Your task to perform on an android device: Search for sushi restaurants on Maps Image 0: 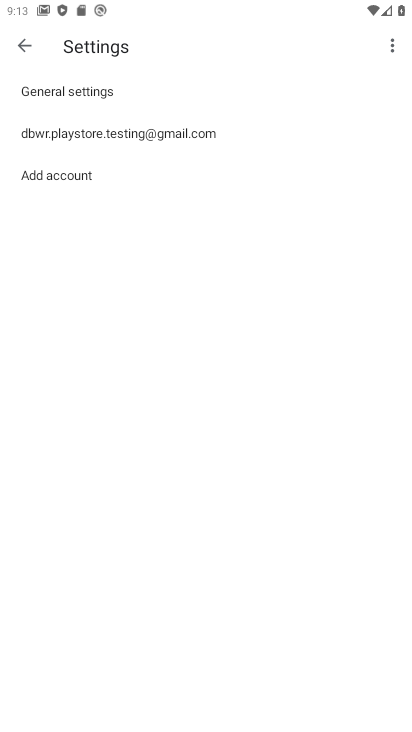
Step 0: press home button
Your task to perform on an android device: Search for sushi restaurants on Maps Image 1: 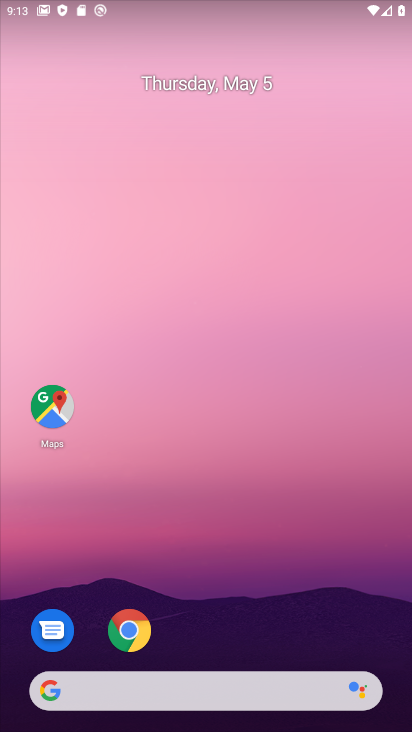
Step 1: click (48, 407)
Your task to perform on an android device: Search for sushi restaurants on Maps Image 2: 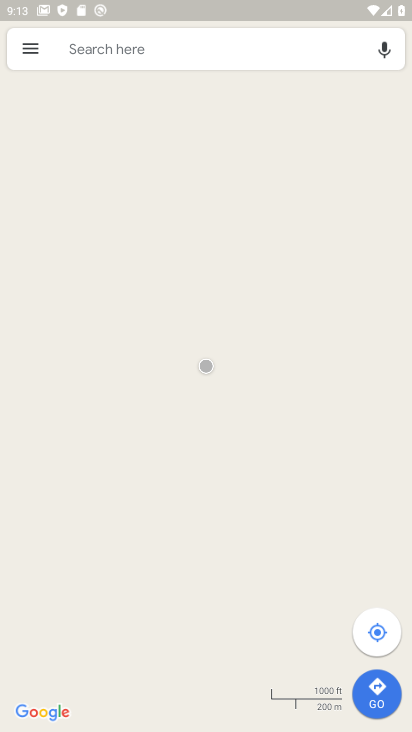
Step 2: click (170, 54)
Your task to perform on an android device: Search for sushi restaurants on Maps Image 3: 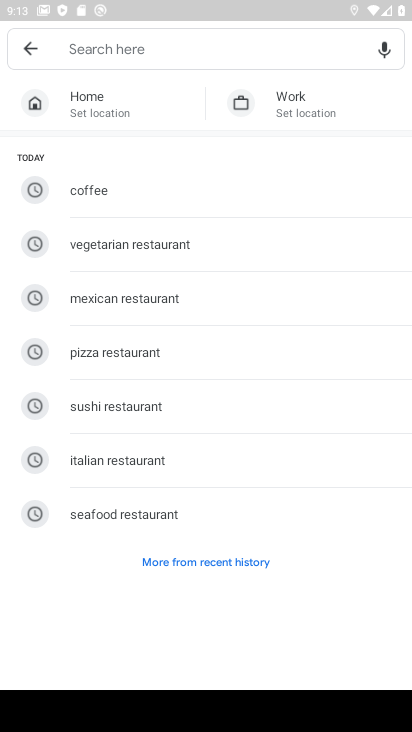
Step 3: type "sushi restaurants"
Your task to perform on an android device: Search for sushi restaurants on Maps Image 4: 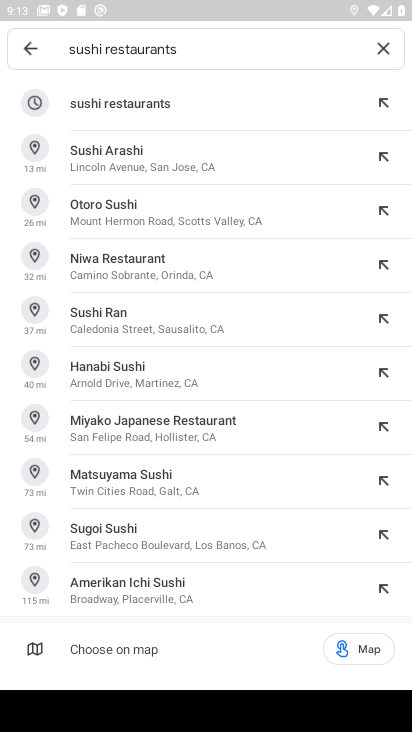
Step 4: click (120, 109)
Your task to perform on an android device: Search for sushi restaurants on Maps Image 5: 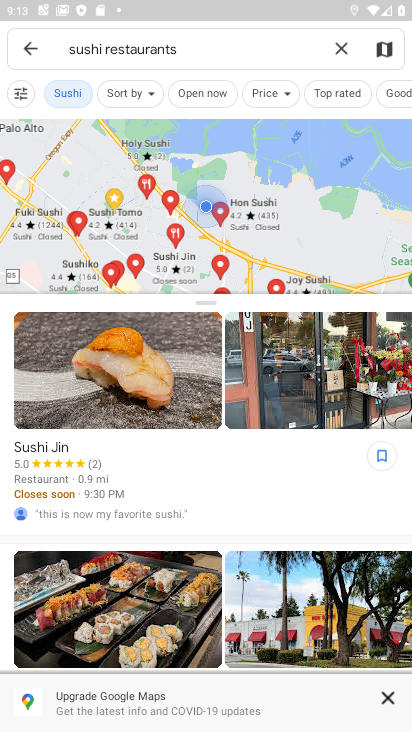
Step 5: task complete